Your task to perform on an android device: Open display settings Image 0: 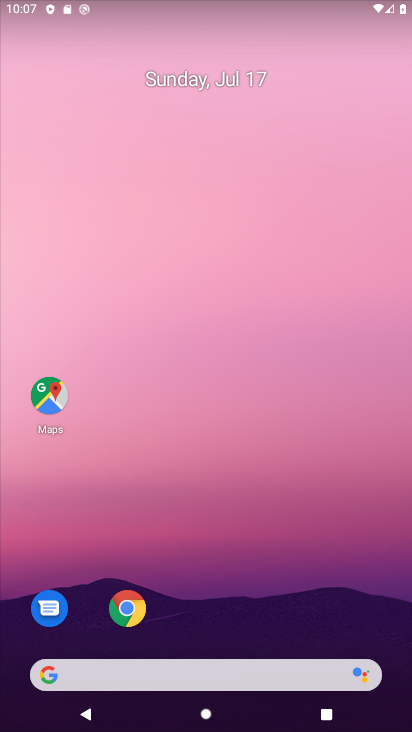
Step 0: drag from (245, 608) to (218, 25)
Your task to perform on an android device: Open display settings Image 1: 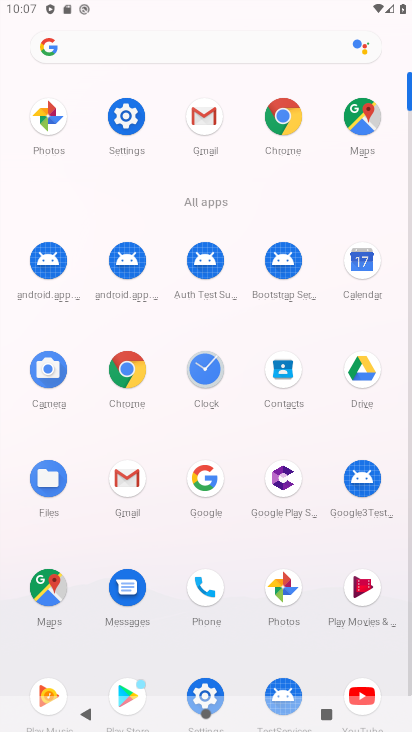
Step 1: click (125, 116)
Your task to perform on an android device: Open display settings Image 2: 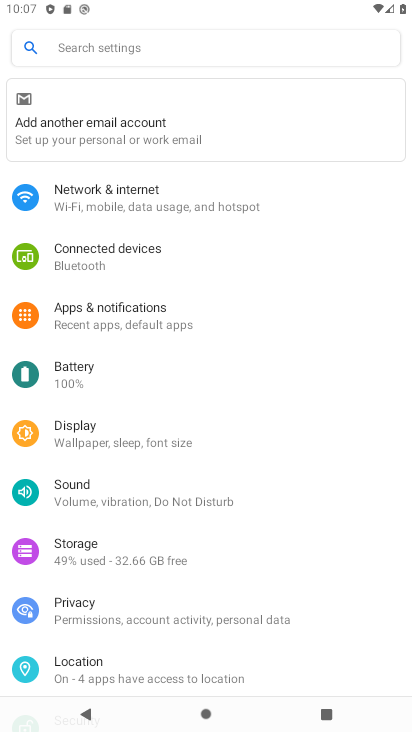
Step 2: drag from (127, 602) to (118, 280)
Your task to perform on an android device: Open display settings Image 3: 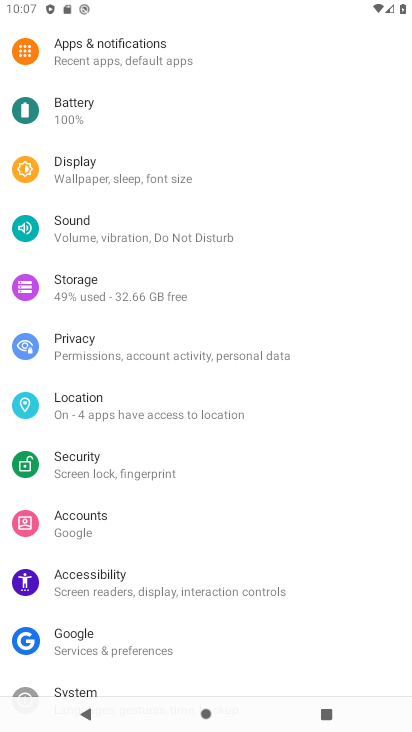
Step 3: click (103, 177)
Your task to perform on an android device: Open display settings Image 4: 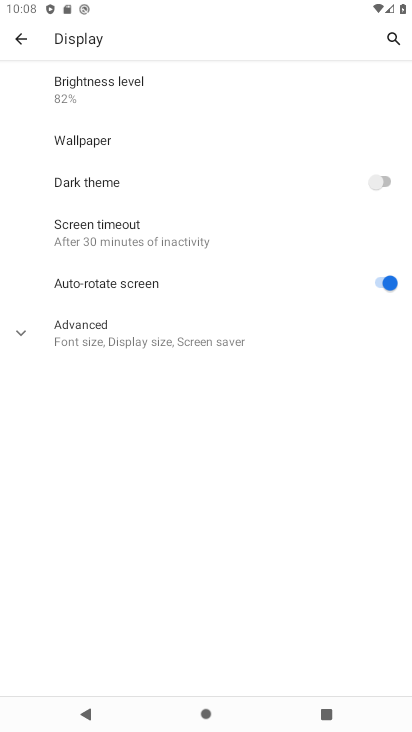
Step 4: task complete